Your task to perform on an android device: empty trash in the gmail app Image 0: 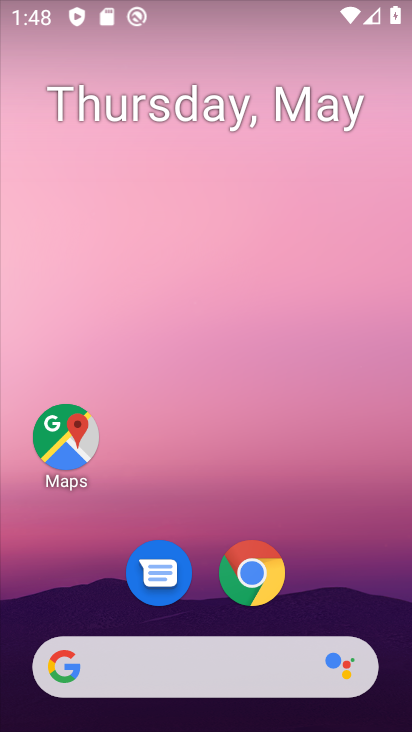
Step 0: drag from (379, 595) to (73, 0)
Your task to perform on an android device: empty trash in the gmail app Image 1: 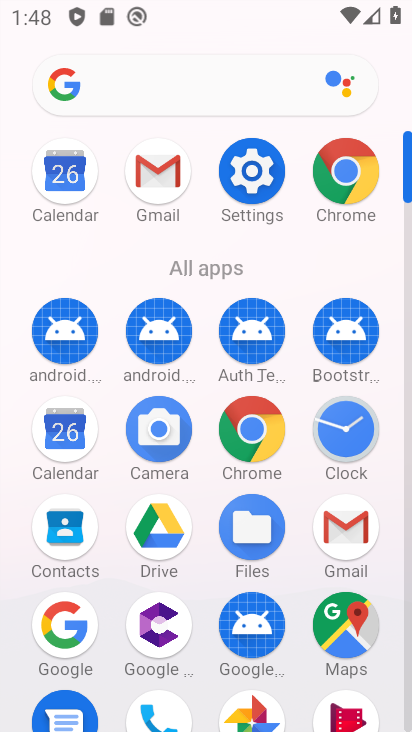
Step 1: click (158, 183)
Your task to perform on an android device: empty trash in the gmail app Image 2: 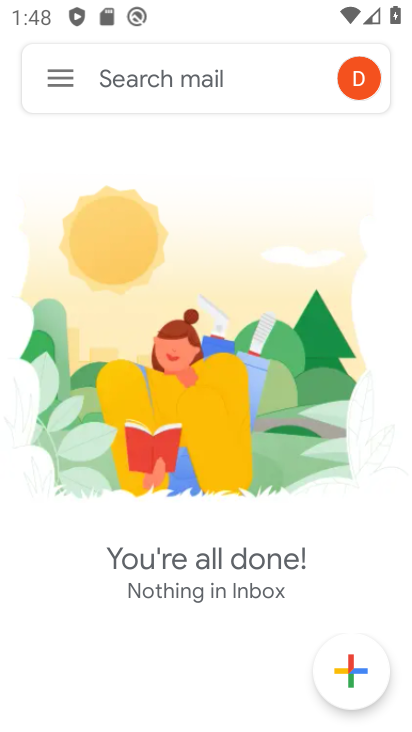
Step 2: click (51, 75)
Your task to perform on an android device: empty trash in the gmail app Image 3: 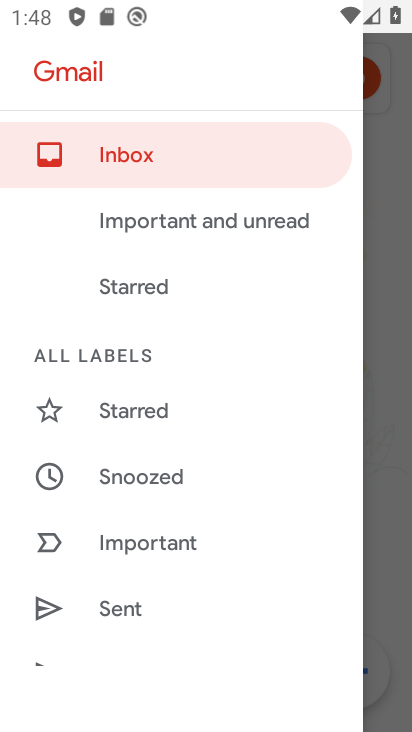
Step 3: drag from (181, 610) to (159, 246)
Your task to perform on an android device: empty trash in the gmail app Image 4: 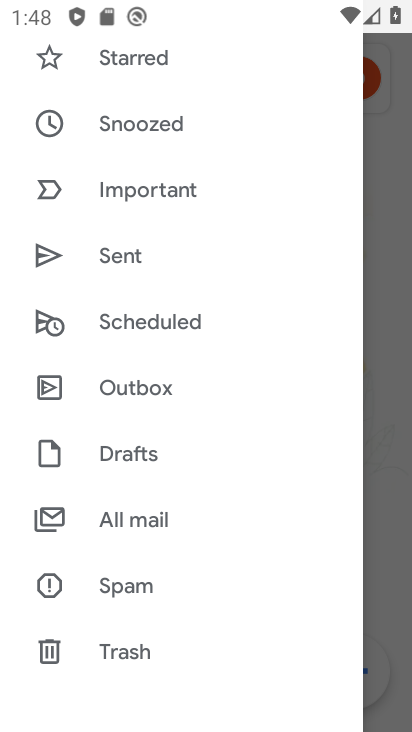
Step 4: click (155, 652)
Your task to perform on an android device: empty trash in the gmail app Image 5: 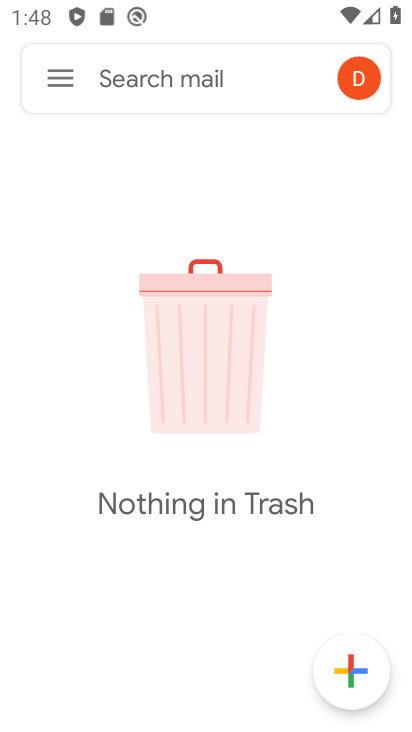
Step 5: task complete